Your task to perform on an android device: remove spam from my inbox in the gmail app Image 0: 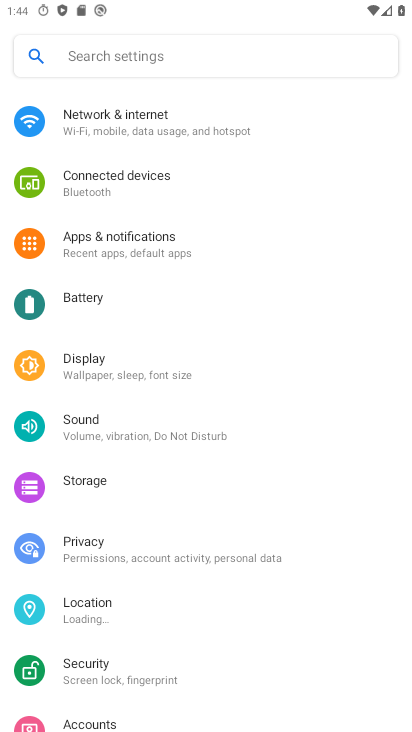
Step 0: drag from (213, 579) to (315, 215)
Your task to perform on an android device: remove spam from my inbox in the gmail app Image 1: 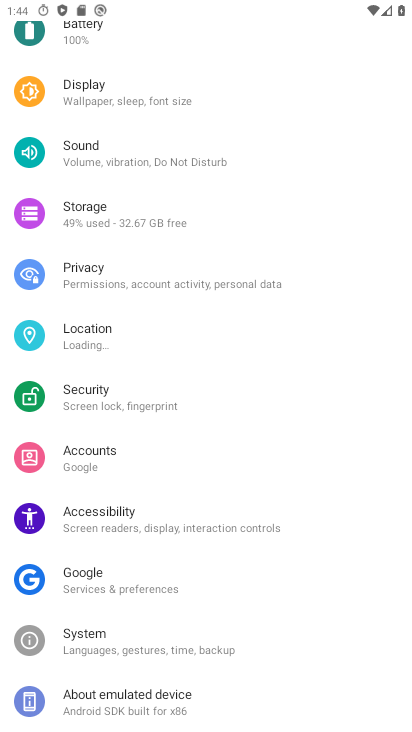
Step 1: drag from (113, 644) to (262, 136)
Your task to perform on an android device: remove spam from my inbox in the gmail app Image 2: 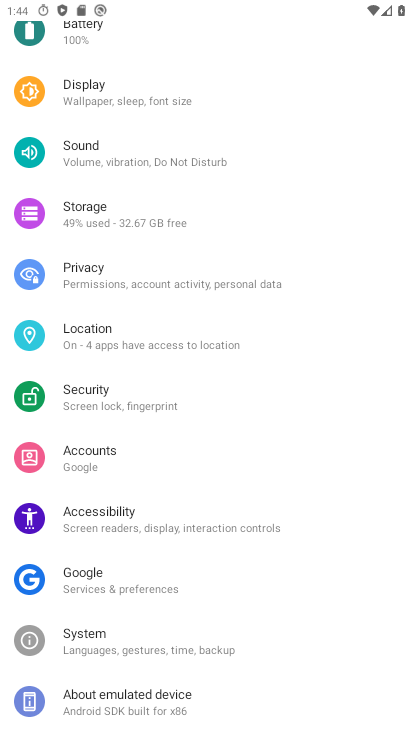
Step 2: drag from (138, 653) to (309, 23)
Your task to perform on an android device: remove spam from my inbox in the gmail app Image 3: 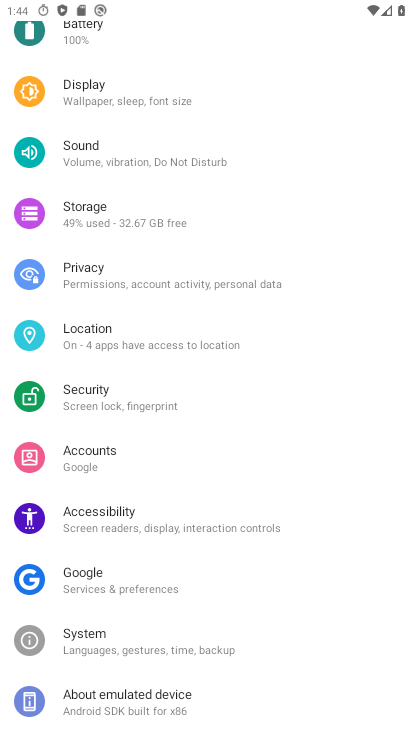
Step 3: press home button
Your task to perform on an android device: remove spam from my inbox in the gmail app Image 4: 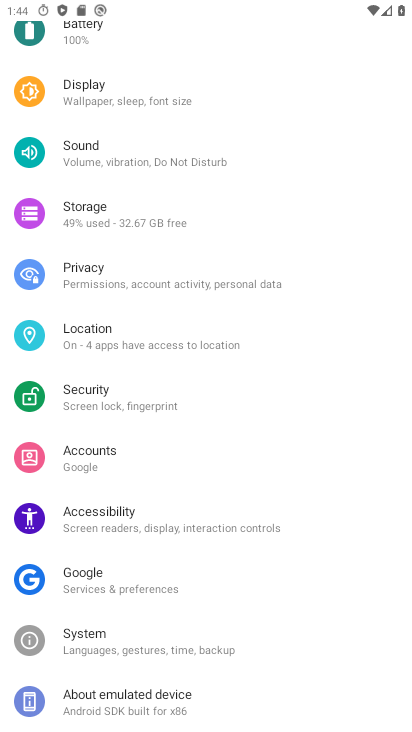
Step 4: press home button
Your task to perform on an android device: remove spam from my inbox in the gmail app Image 5: 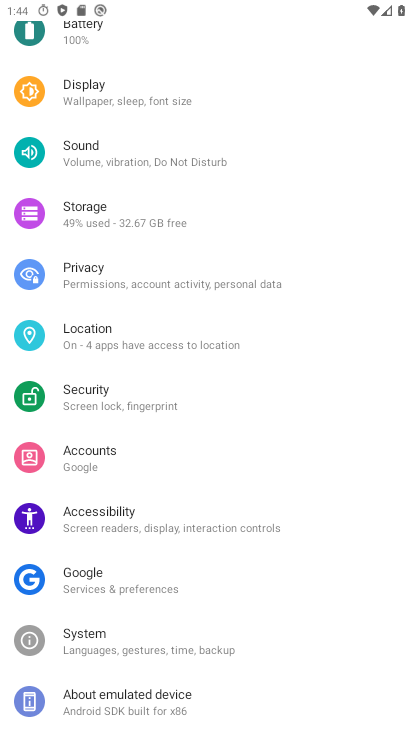
Step 5: drag from (189, 570) to (251, 333)
Your task to perform on an android device: remove spam from my inbox in the gmail app Image 6: 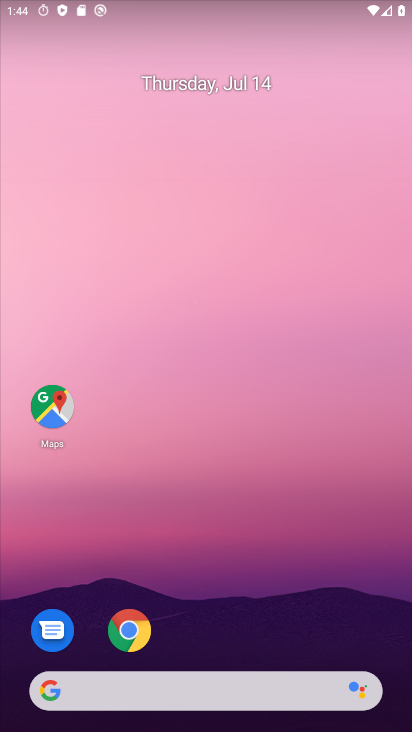
Step 6: drag from (198, 624) to (346, 8)
Your task to perform on an android device: remove spam from my inbox in the gmail app Image 7: 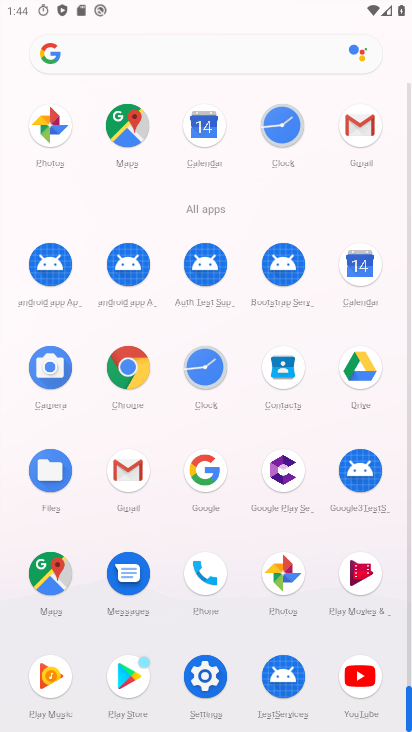
Step 7: click (374, 129)
Your task to perform on an android device: remove spam from my inbox in the gmail app Image 8: 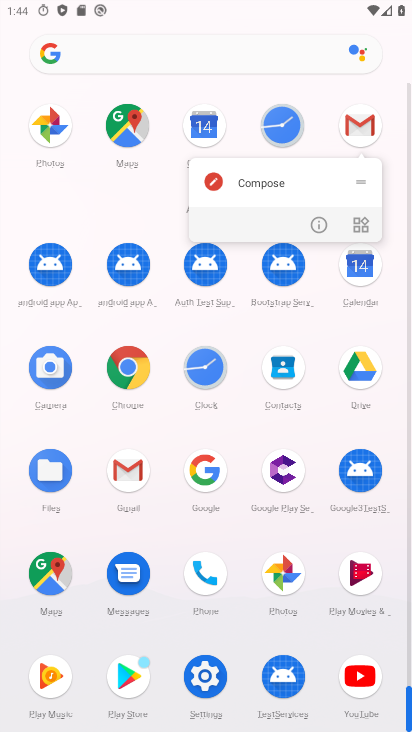
Step 8: click (318, 221)
Your task to perform on an android device: remove spam from my inbox in the gmail app Image 9: 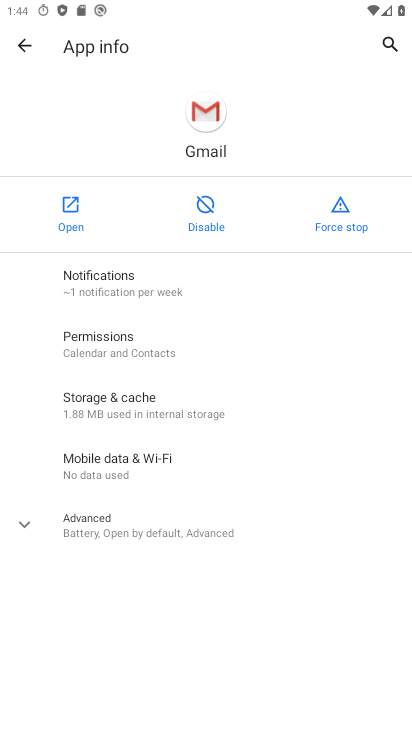
Step 9: click (84, 218)
Your task to perform on an android device: remove spam from my inbox in the gmail app Image 10: 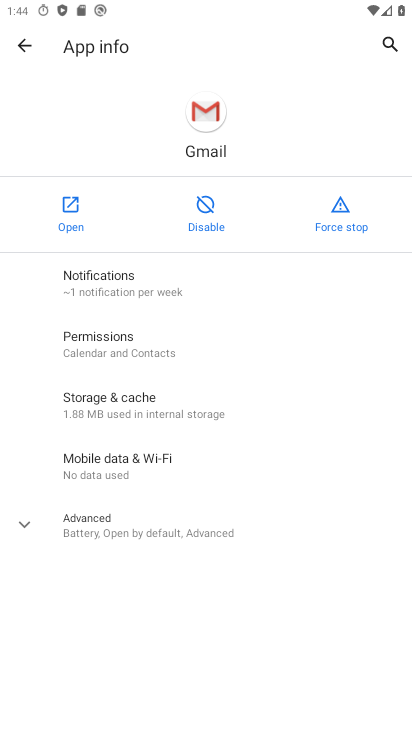
Step 10: click (84, 216)
Your task to perform on an android device: remove spam from my inbox in the gmail app Image 11: 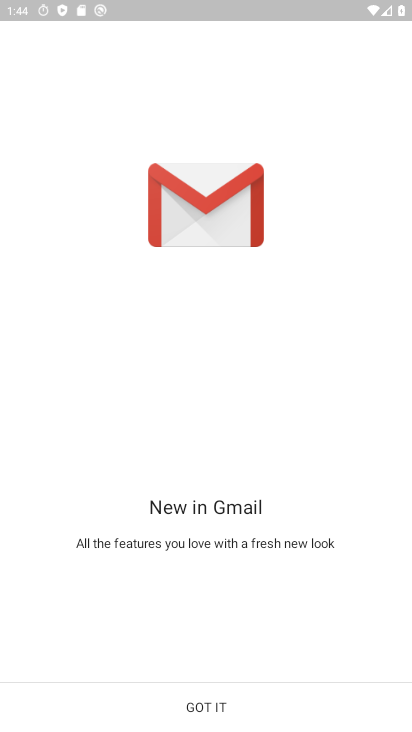
Step 11: drag from (149, 492) to (254, 201)
Your task to perform on an android device: remove spam from my inbox in the gmail app Image 12: 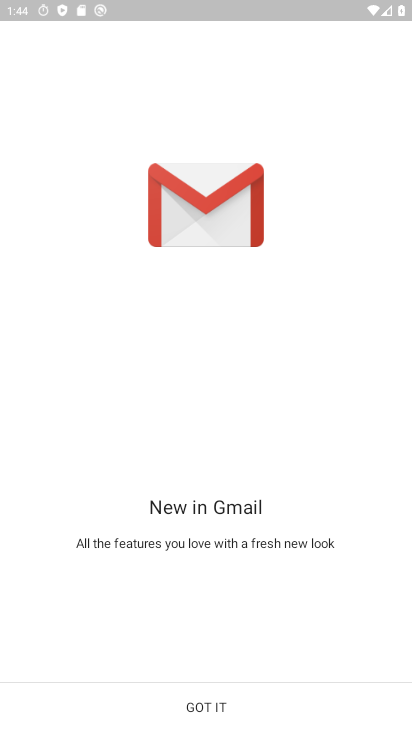
Step 12: click (211, 704)
Your task to perform on an android device: remove spam from my inbox in the gmail app Image 13: 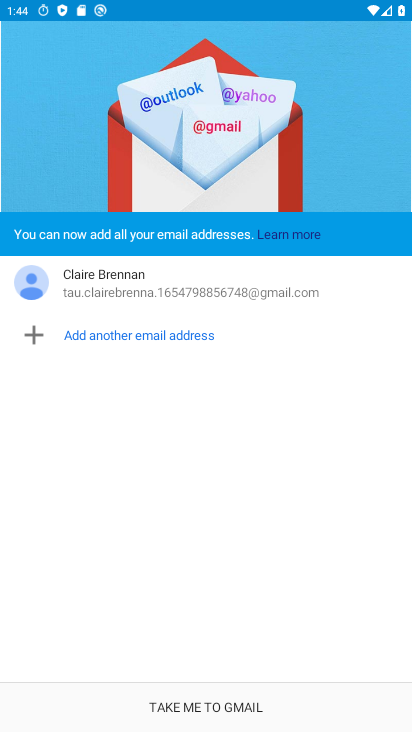
Step 13: click (257, 695)
Your task to perform on an android device: remove spam from my inbox in the gmail app Image 14: 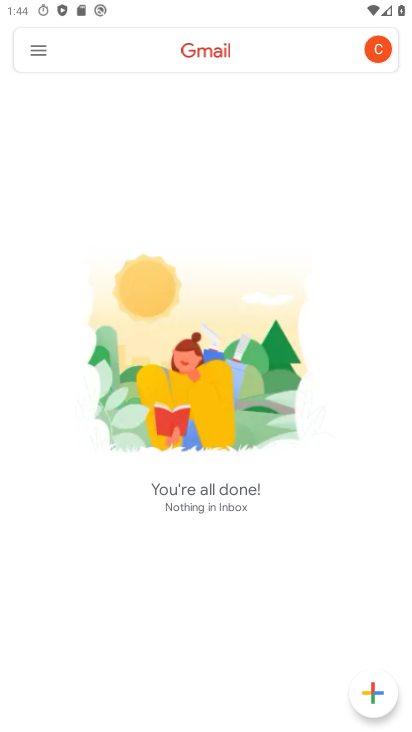
Step 14: click (49, 56)
Your task to perform on an android device: remove spam from my inbox in the gmail app Image 15: 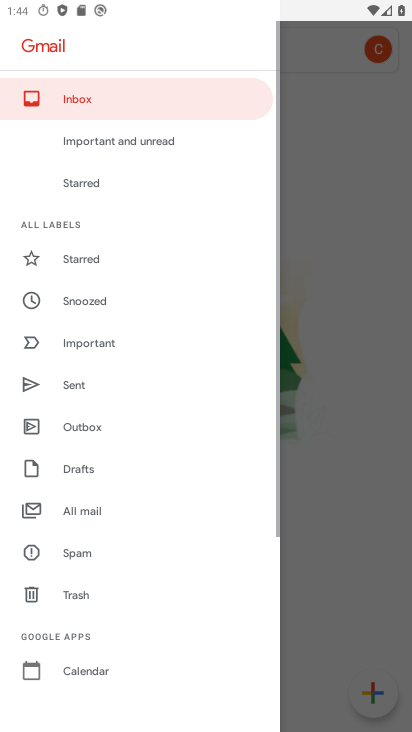
Step 15: drag from (171, 493) to (196, 216)
Your task to perform on an android device: remove spam from my inbox in the gmail app Image 16: 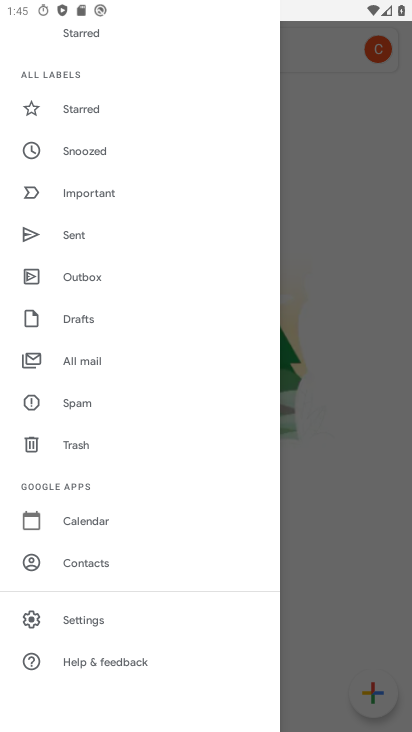
Step 16: click (96, 418)
Your task to perform on an android device: remove spam from my inbox in the gmail app Image 17: 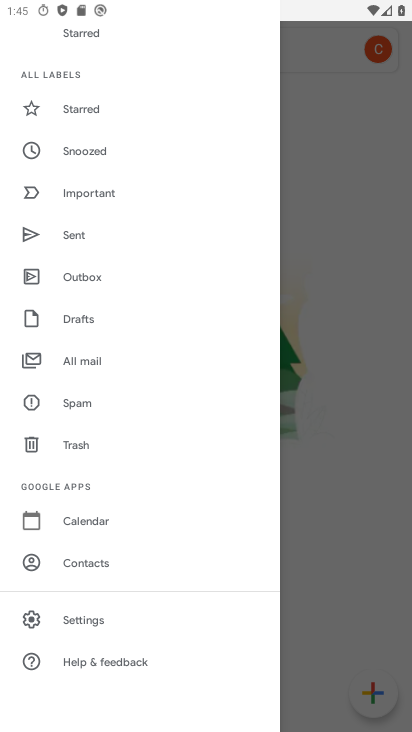
Step 17: click (84, 403)
Your task to perform on an android device: remove spam from my inbox in the gmail app Image 18: 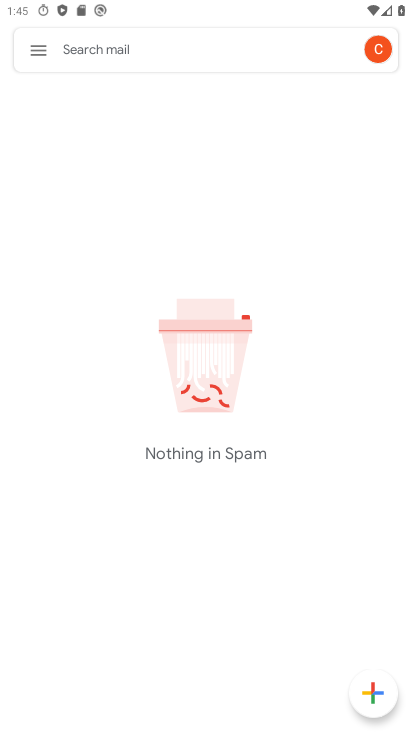
Step 18: drag from (228, 503) to (278, 344)
Your task to perform on an android device: remove spam from my inbox in the gmail app Image 19: 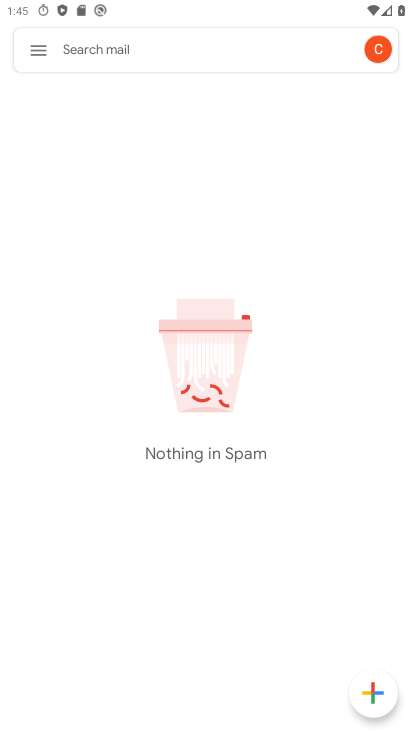
Step 19: drag from (161, 566) to (260, 112)
Your task to perform on an android device: remove spam from my inbox in the gmail app Image 20: 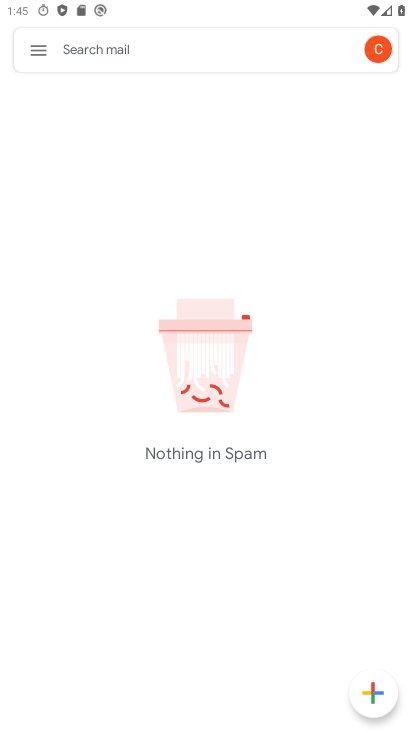
Step 20: click (47, 57)
Your task to perform on an android device: remove spam from my inbox in the gmail app Image 21: 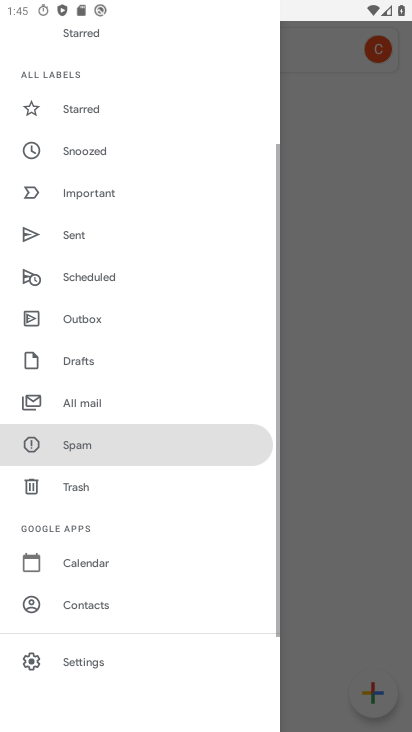
Step 21: drag from (158, 547) to (158, 333)
Your task to perform on an android device: remove spam from my inbox in the gmail app Image 22: 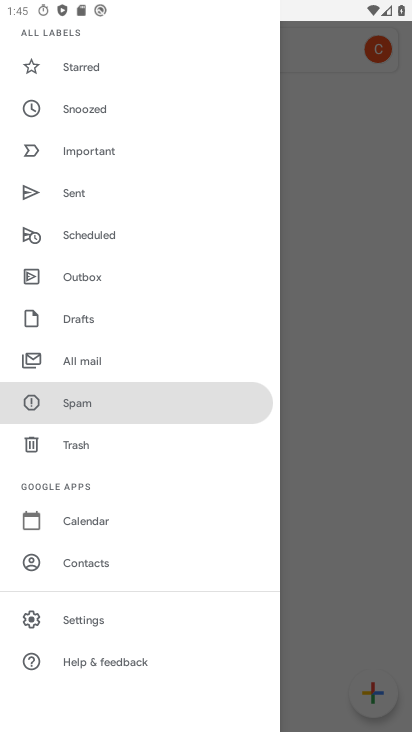
Step 22: drag from (154, 663) to (239, 420)
Your task to perform on an android device: remove spam from my inbox in the gmail app Image 23: 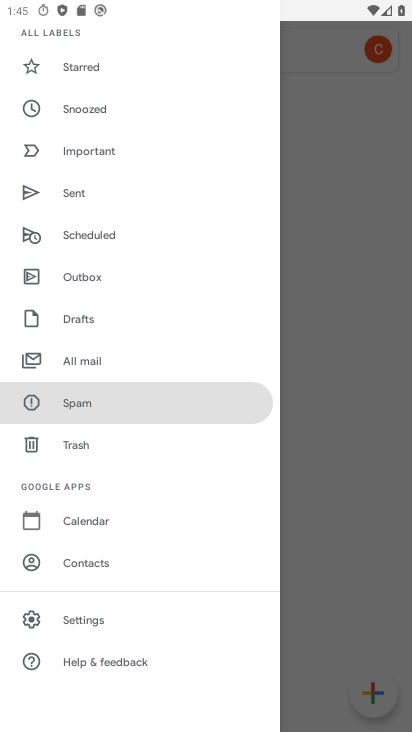
Step 23: click (101, 405)
Your task to perform on an android device: remove spam from my inbox in the gmail app Image 24: 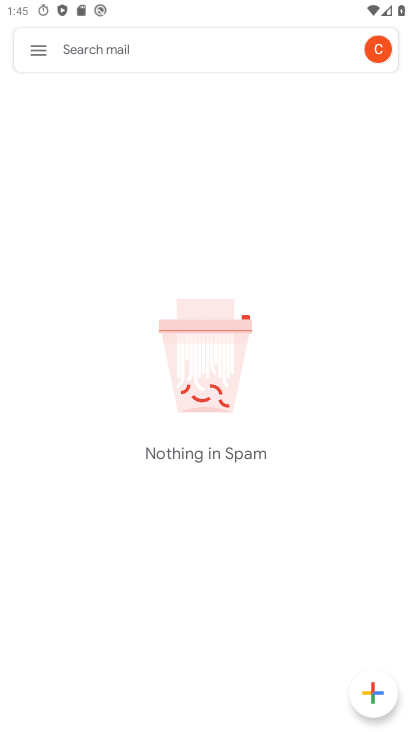
Step 24: drag from (260, 577) to (399, 129)
Your task to perform on an android device: remove spam from my inbox in the gmail app Image 25: 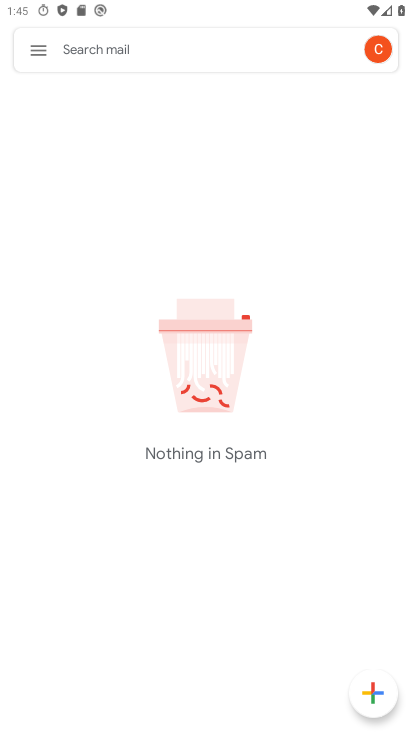
Step 25: drag from (256, 507) to (278, 139)
Your task to perform on an android device: remove spam from my inbox in the gmail app Image 26: 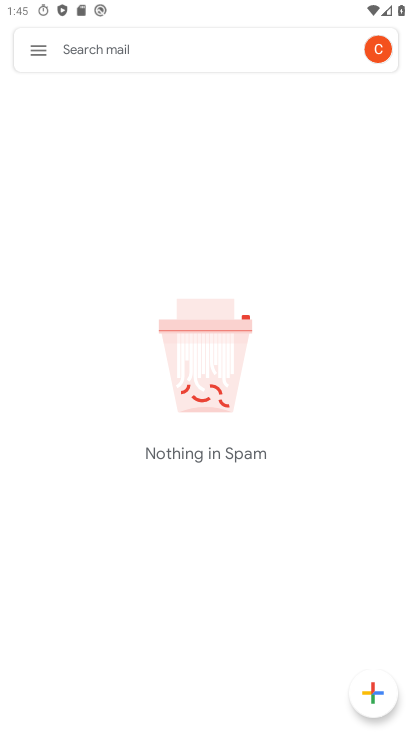
Step 26: drag from (178, 452) to (269, 95)
Your task to perform on an android device: remove spam from my inbox in the gmail app Image 27: 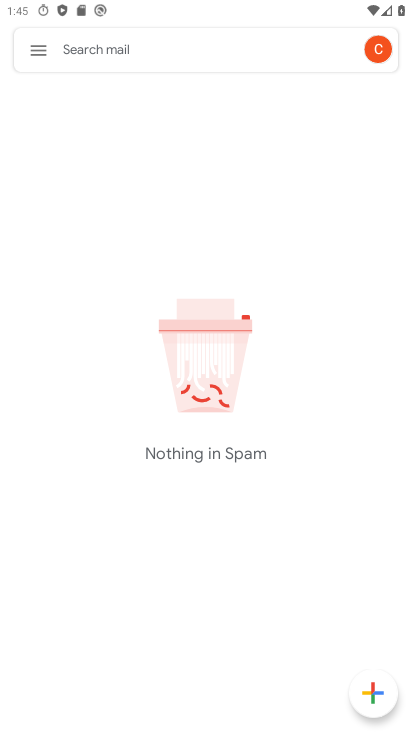
Step 27: click (239, 470)
Your task to perform on an android device: remove spam from my inbox in the gmail app Image 28: 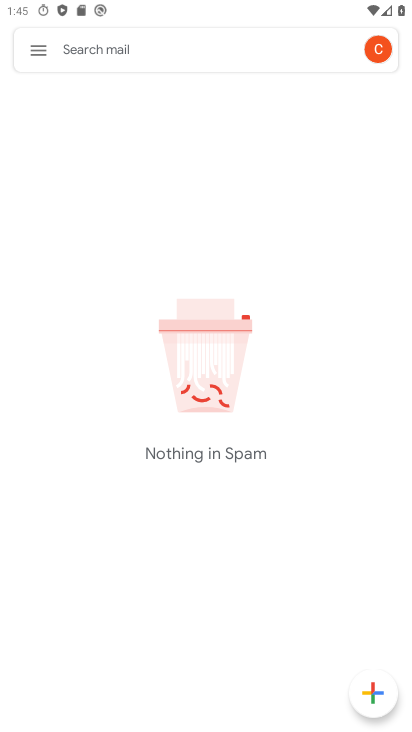
Step 28: click (214, 281)
Your task to perform on an android device: remove spam from my inbox in the gmail app Image 29: 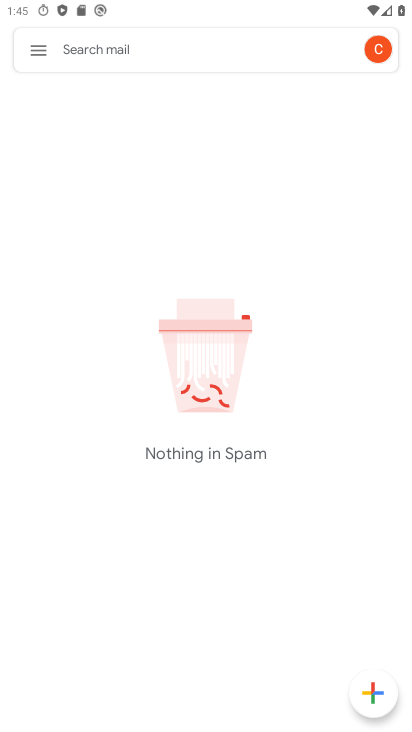
Step 29: click (213, 278)
Your task to perform on an android device: remove spam from my inbox in the gmail app Image 30: 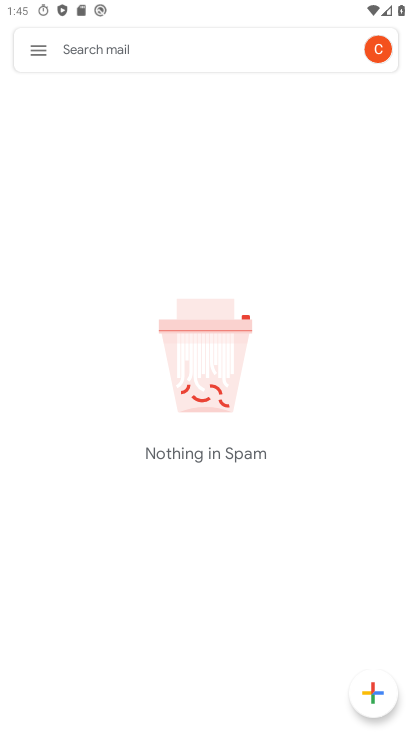
Step 30: task complete